Your task to perform on an android device: set an alarm Image 0: 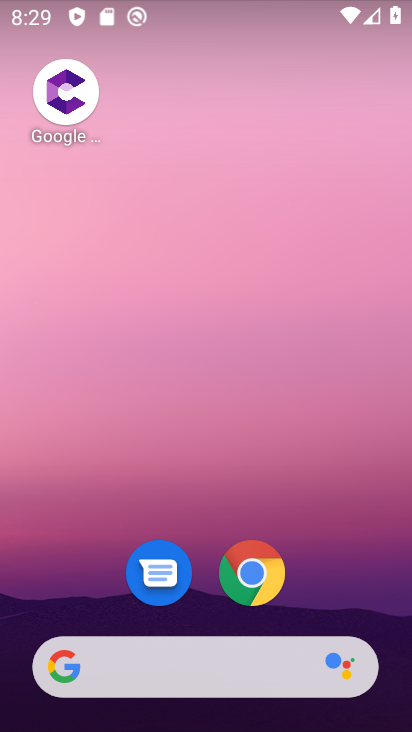
Step 0: drag from (349, 597) to (272, 72)
Your task to perform on an android device: set an alarm Image 1: 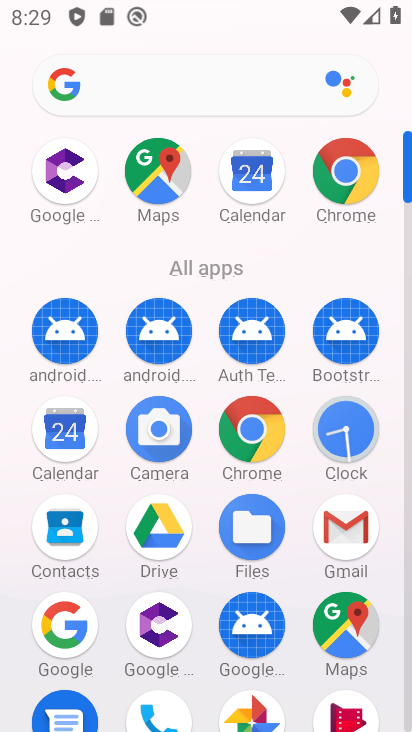
Step 1: click (344, 426)
Your task to perform on an android device: set an alarm Image 2: 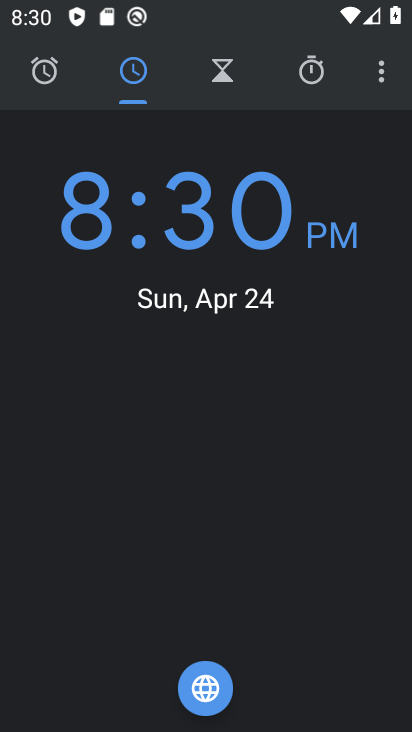
Step 2: click (44, 74)
Your task to perform on an android device: set an alarm Image 3: 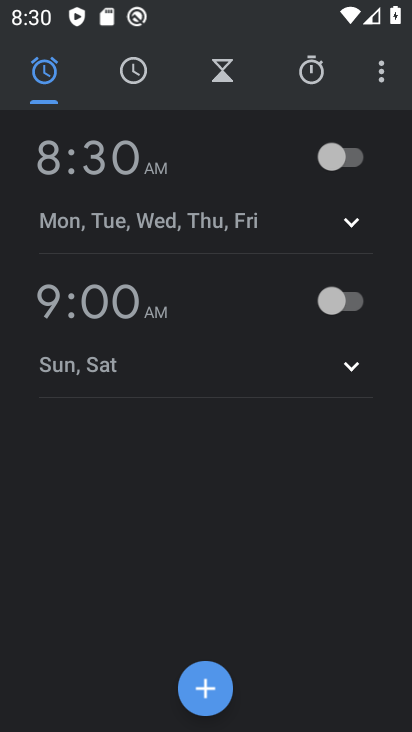
Step 3: click (207, 686)
Your task to perform on an android device: set an alarm Image 4: 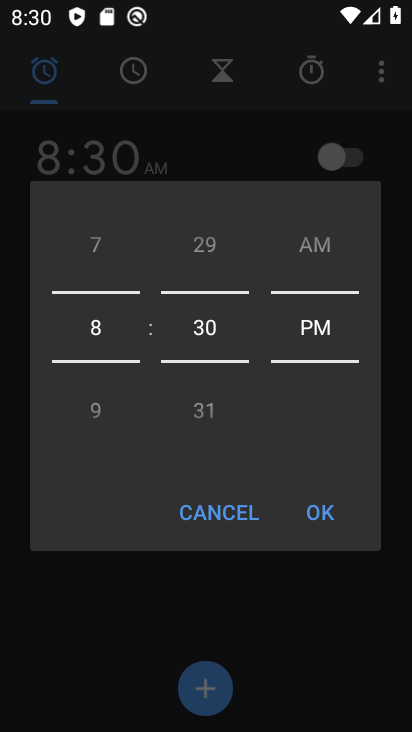
Step 4: click (318, 515)
Your task to perform on an android device: set an alarm Image 5: 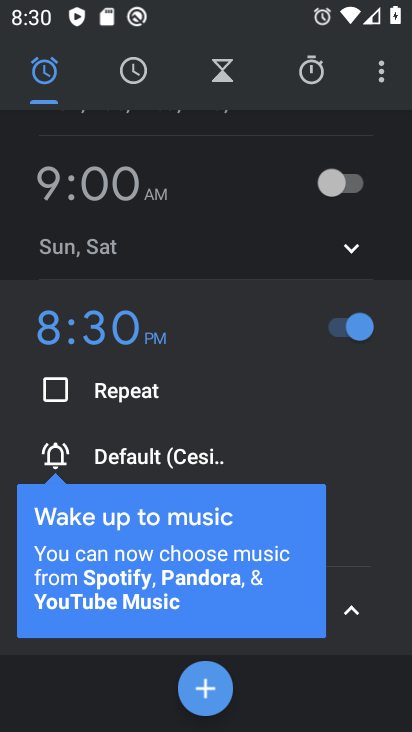
Step 5: task complete